Your task to perform on an android device: turn on the 24-hour format for clock Image 0: 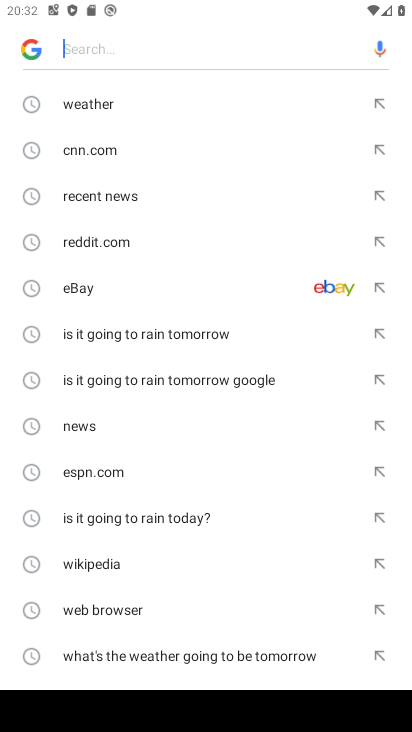
Step 0: press home button
Your task to perform on an android device: turn on the 24-hour format for clock Image 1: 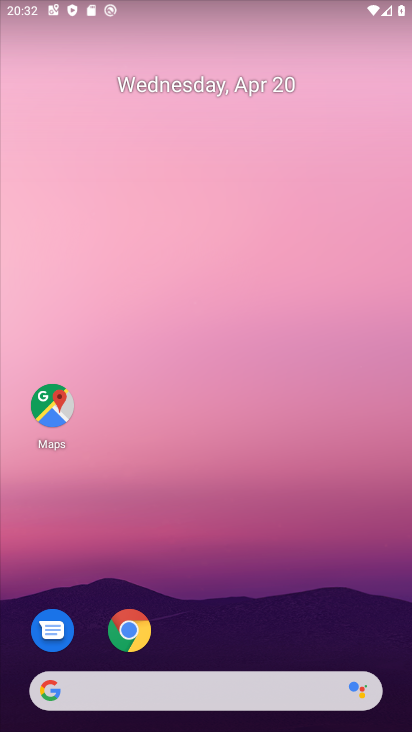
Step 1: drag from (255, 611) to (212, 125)
Your task to perform on an android device: turn on the 24-hour format for clock Image 2: 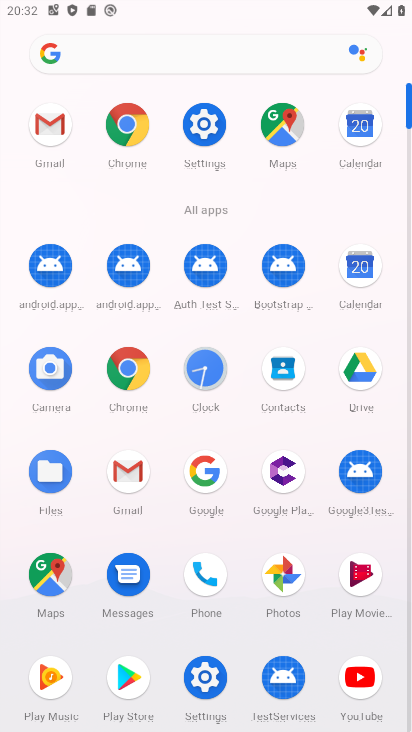
Step 2: click (201, 361)
Your task to perform on an android device: turn on the 24-hour format for clock Image 3: 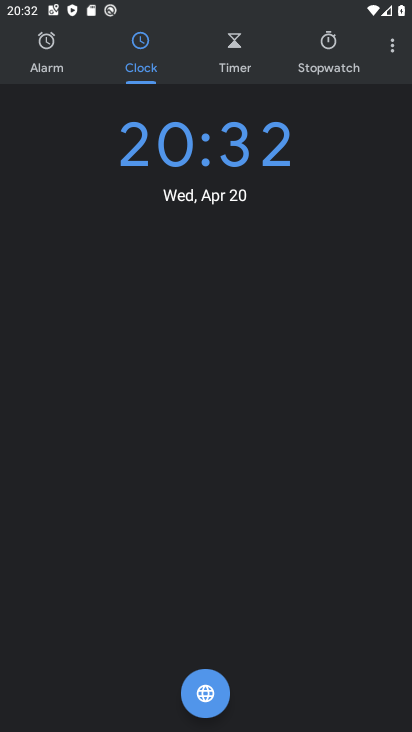
Step 3: click (393, 50)
Your task to perform on an android device: turn on the 24-hour format for clock Image 4: 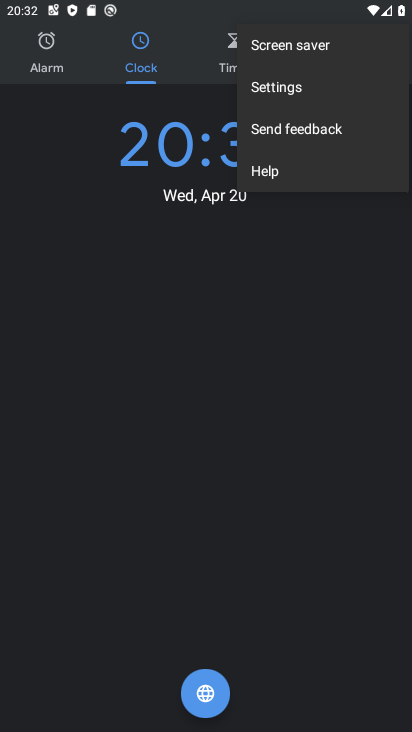
Step 4: click (277, 90)
Your task to perform on an android device: turn on the 24-hour format for clock Image 5: 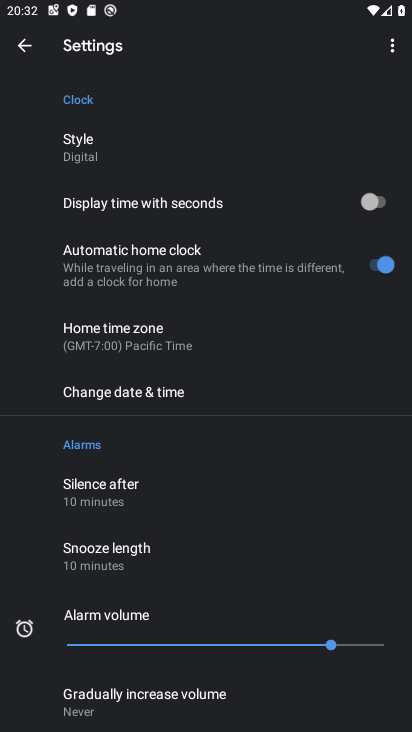
Step 5: click (184, 386)
Your task to perform on an android device: turn on the 24-hour format for clock Image 6: 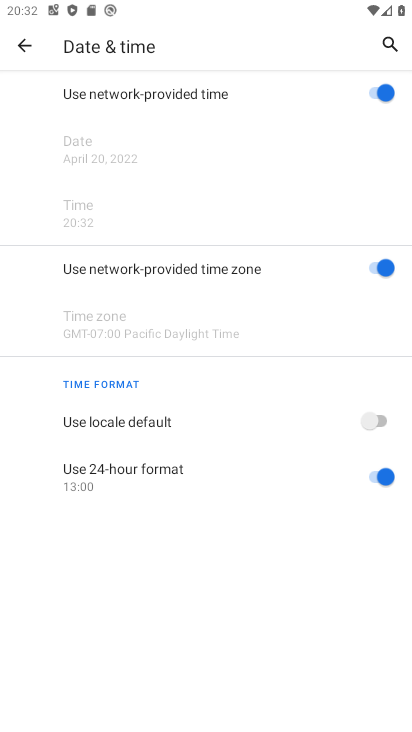
Step 6: task complete